Your task to perform on an android device: Open ESPN.com Image 0: 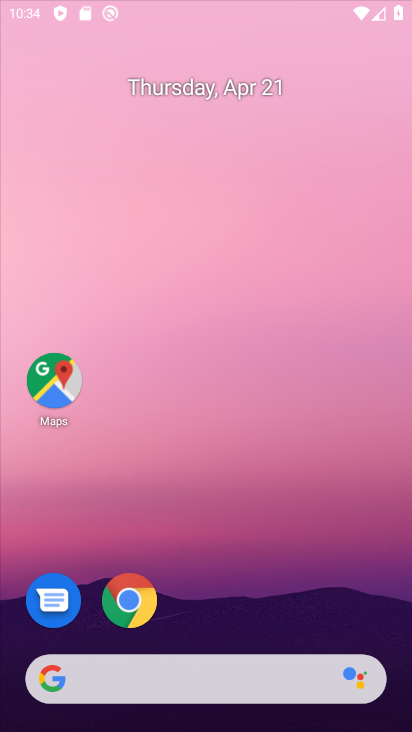
Step 0: drag from (270, 359) to (241, 123)
Your task to perform on an android device: Open ESPN.com Image 1: 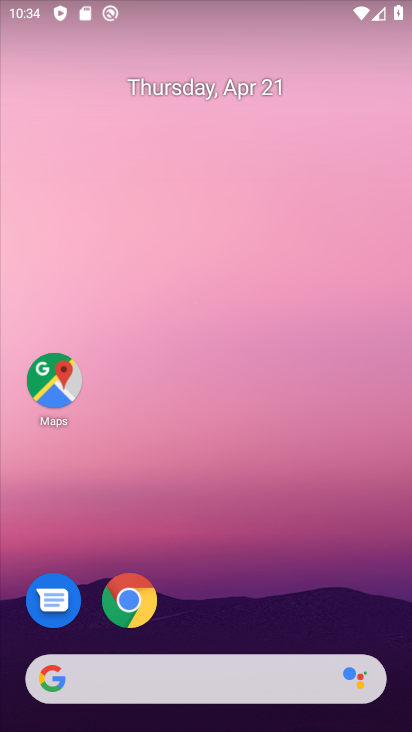
Step 1: drag from (239, 272) to (224, 124)
Your task to perform on an android device: Open ESPN.com Image 2: 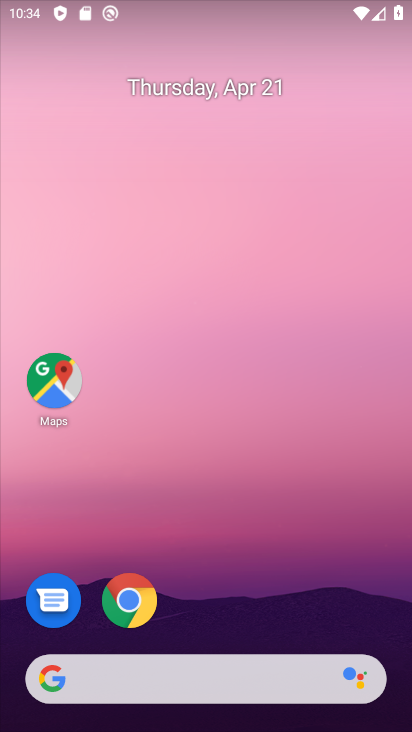
Step 2: drag from (259, 463) to (270, 60)
Your task to perform on an android device: Open ESPN.com Image 3: 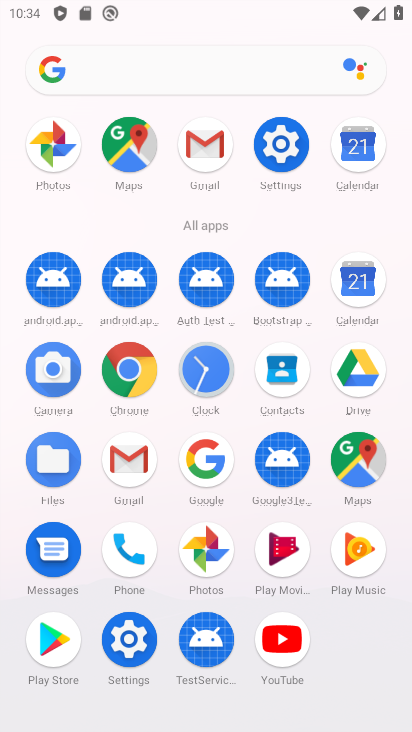
Step 3: click (121, 386)
Your task to perform on an android device: Open ESPN.com Image 4: 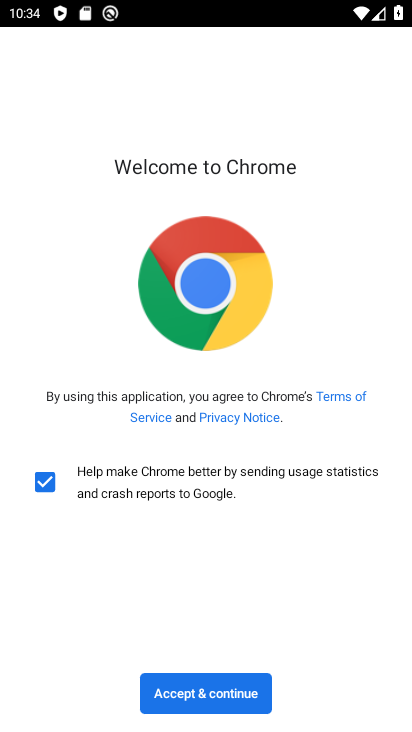
Step 4: click (178, 706)
Your task to perform on an android device: Open ESPN.com Image 5: 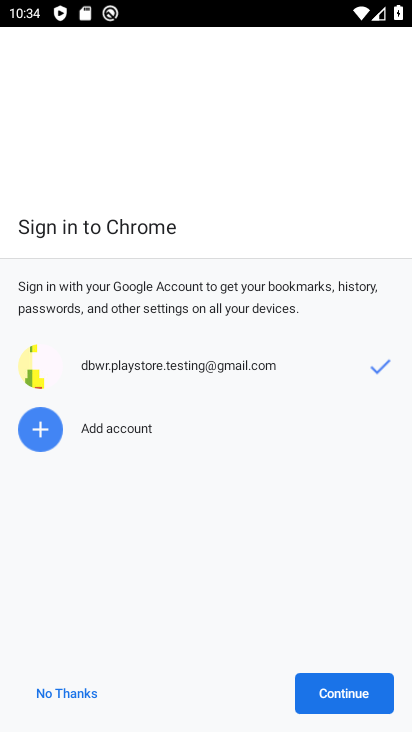
Step 5: click (74, 694)
Your task to perform on an android device: Open ESPN.com Image 6: 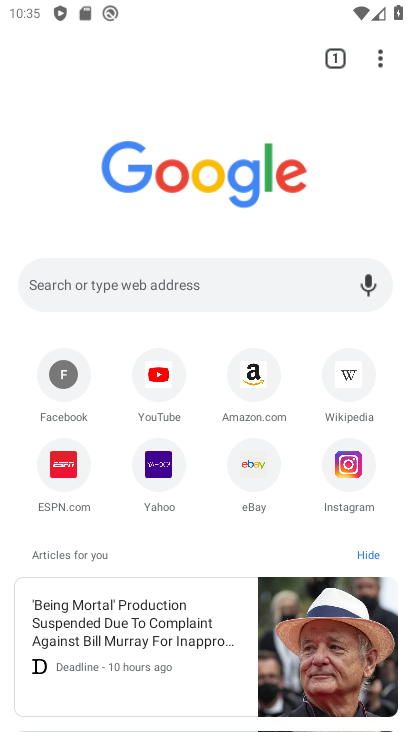
Step 6: click (61, 449)
Your task to perform on an android device: Open ESPN.com Image 7: 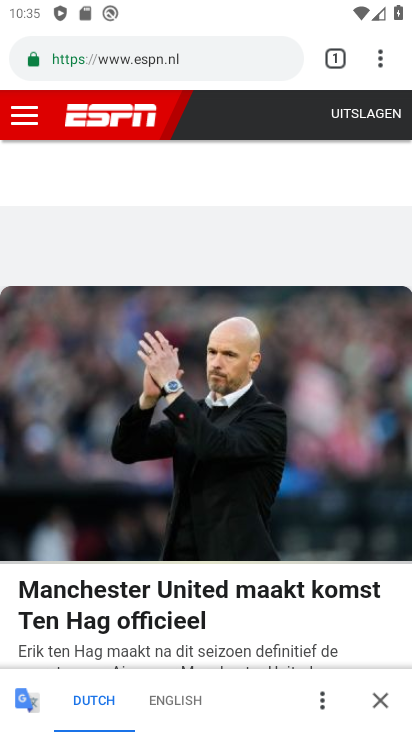
Step 7: task complete